Your task to perform on an android device: turn on airplane mode Image 0: 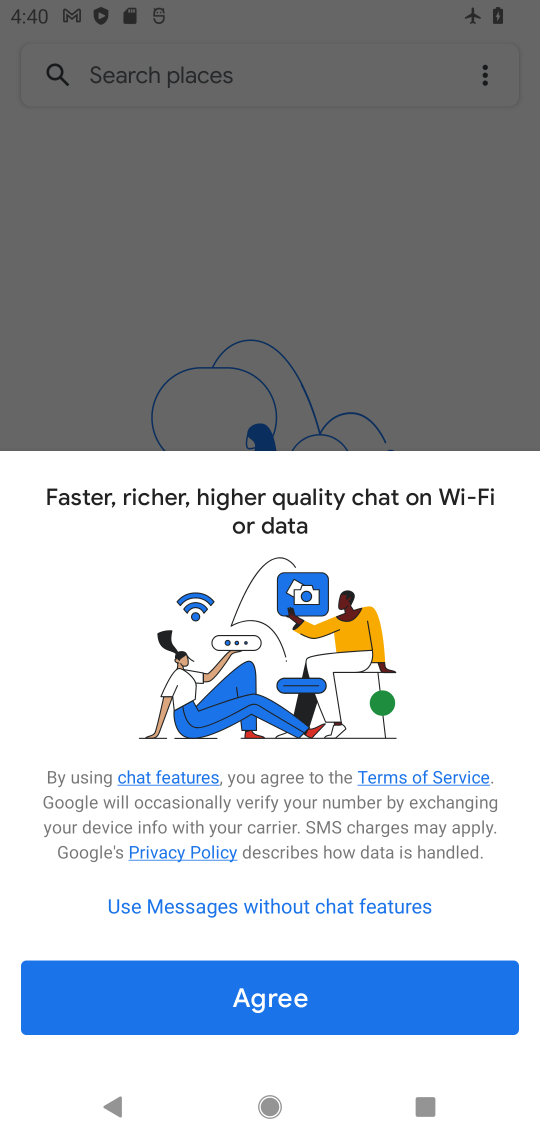
Step 0: press home button
Your task to perform on an android device: turn on airplane mode Image 1: 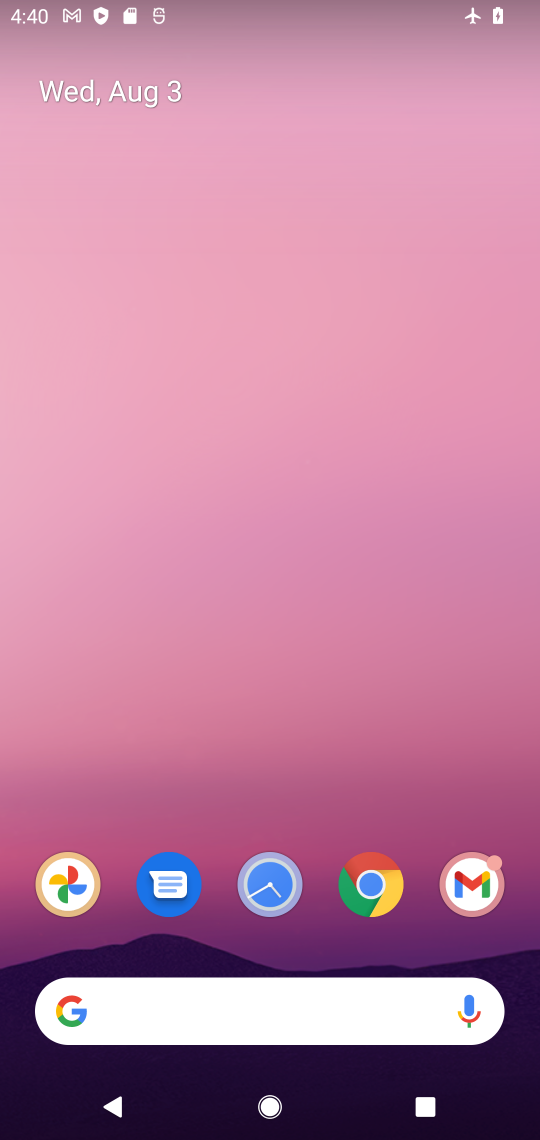
Step 1: drag from (222, 936) to (340, 93)
Your task to perform on an android device: turn on airplane mode Image 2: 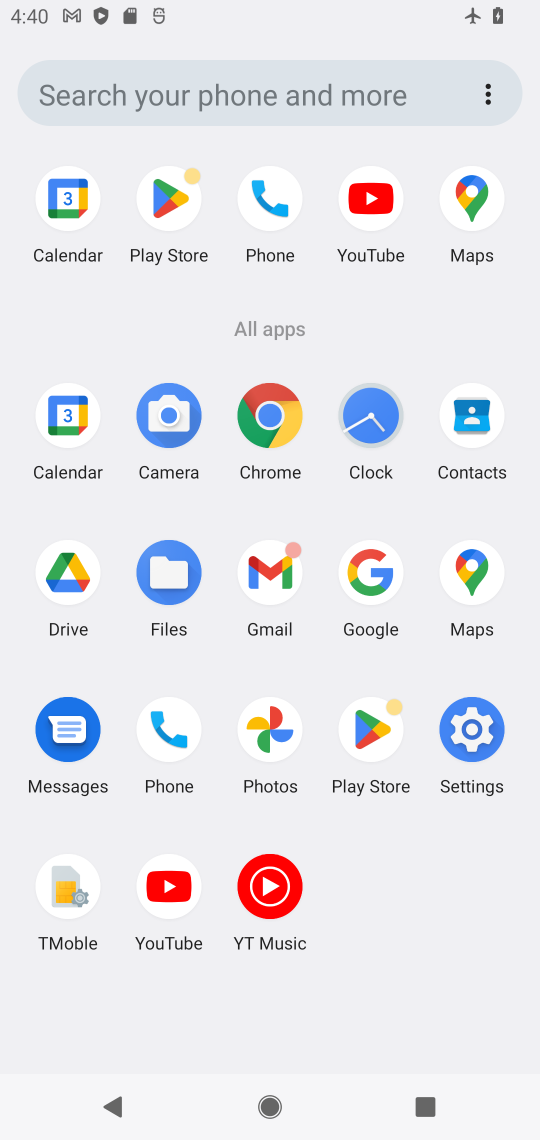
Step 2: click (484, 725)
Your task to perform on an android device: turn on airplane mode Image 3: 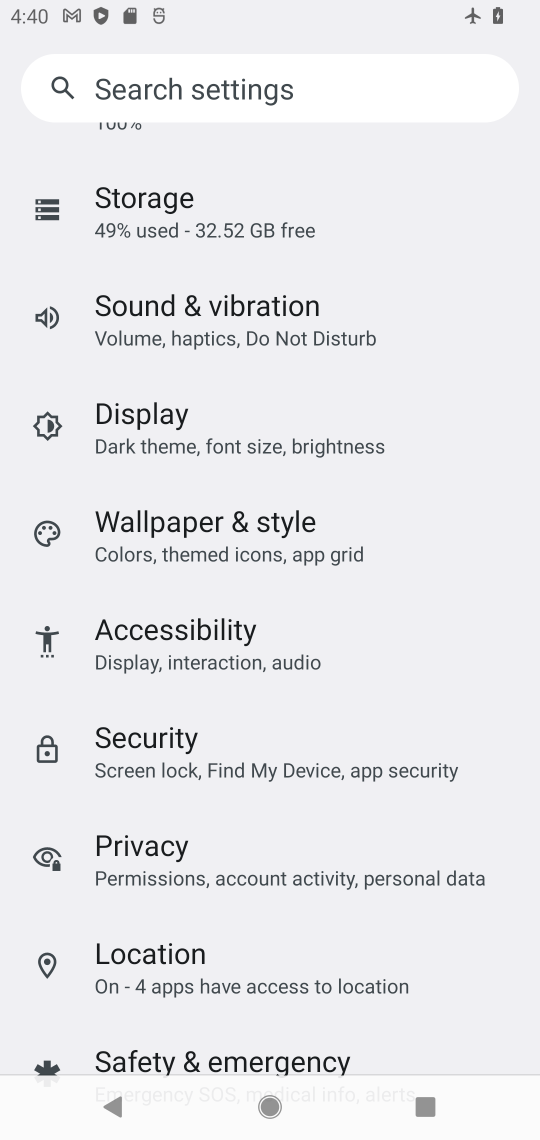
Step 3: drag from (303, 265) to (344, 901)
Your task to perform on an android device: turn on airplane mode Image 4: 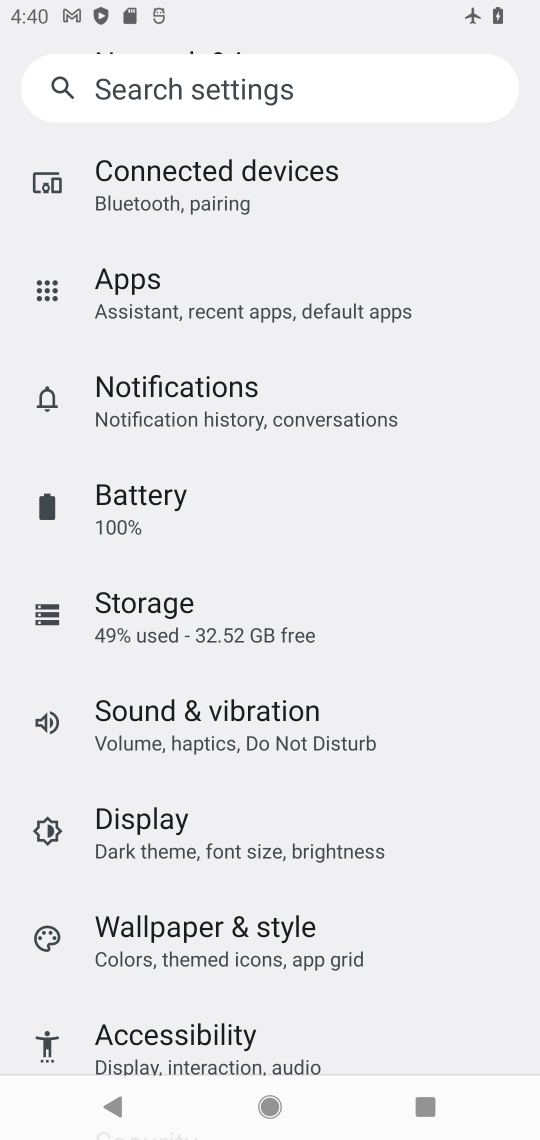
Step 4: drag from (300, 294) to (301, 955)
Your task to perform on an android device: turn on airplane mode Image 5: 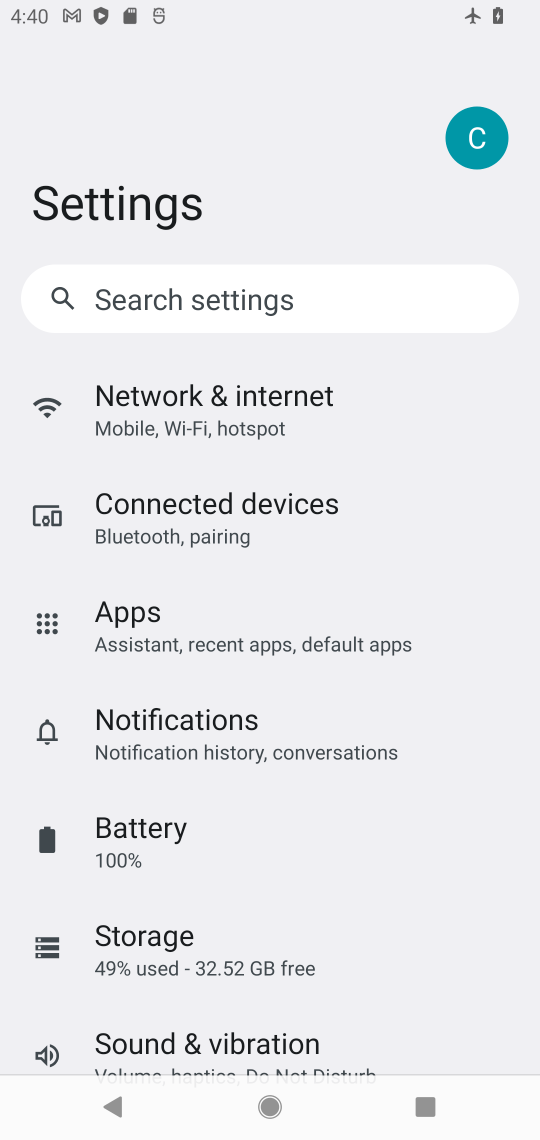
Step 5: click (189, 435)
Your task to perform on an android device: turn on airplane mode Image 6: 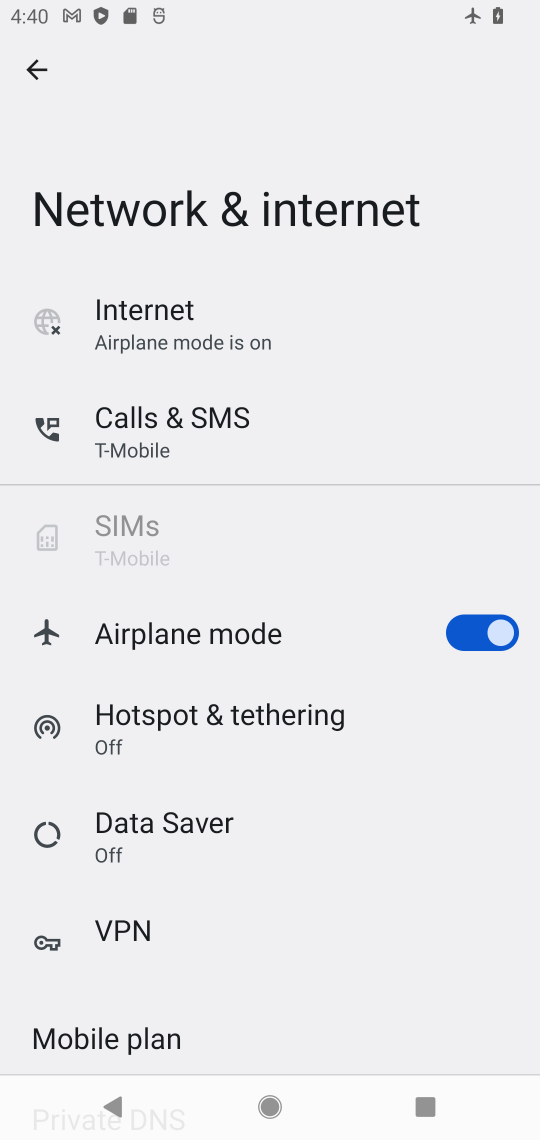
Step 6: task complete